Your task to perform on an android device: turn off priority inbox in the gmail app Image 0: 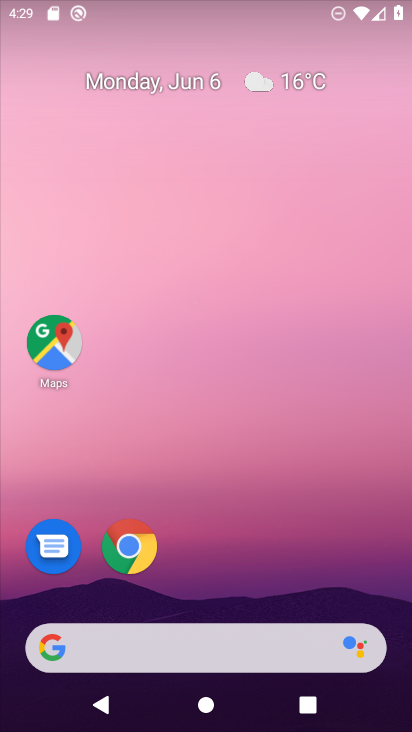
Step 0: drag from (221, 630) to (225, 102)
Your task to perform on an android device: turn off priority inbox in the gmail app Image 1: 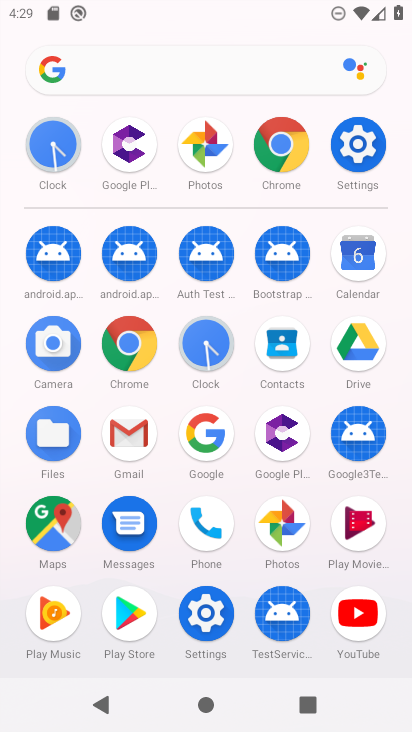
Step 1: click (131, 447)
Your task to perform on an android device: turn off priority inbox in the gmail app Image 2: 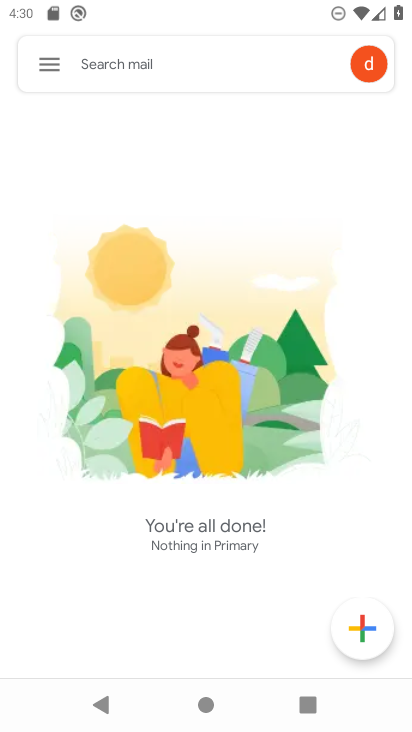
Step 2: click (45, 71)
Your task to perform on an android device: turn off priority inbox in the gmail app Image 3: 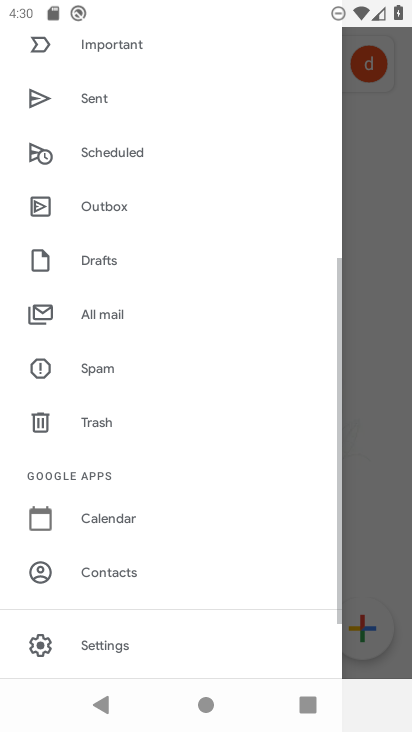
Step 3: click (105, 641)
Your task to perform on an android device: turn off priority inbox in the gmail app Image 4: 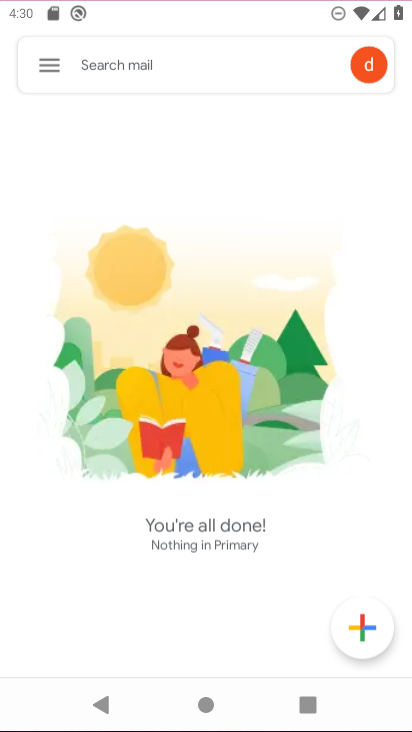
Step 4: drag from (105, 625) to (40, 79)
Your task to perform on an android device: turn off priority inbox in the gmail app Image 5: 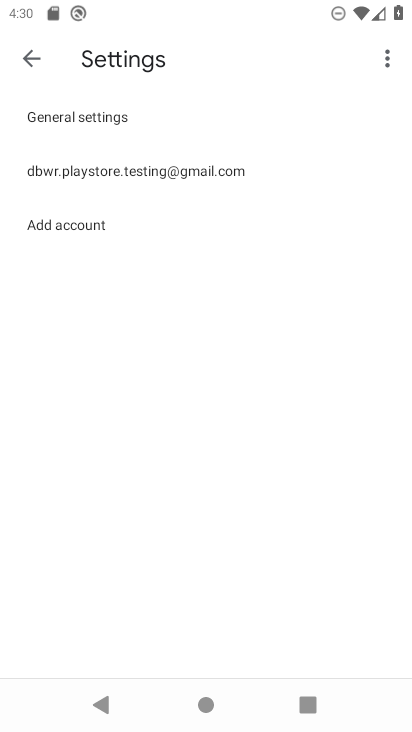
Step 5: click (71, 174)
Your task to perform on an android device: turn off priority inbox in the gmail app Image 6: 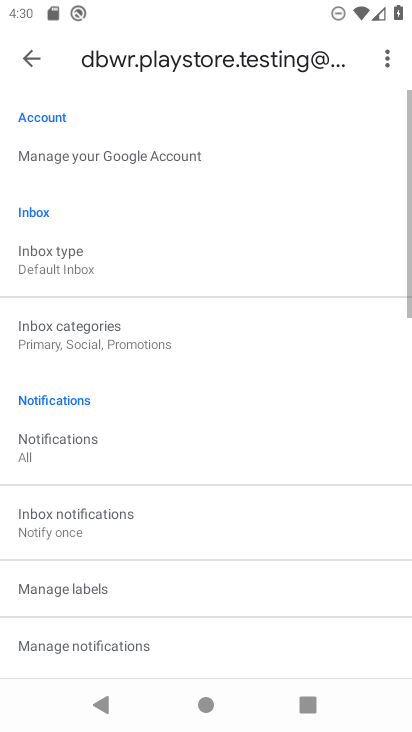
Step 6: click (80, 269)
Your task to perform on an android device: turn off priority inbox in the gmail app Image 7: 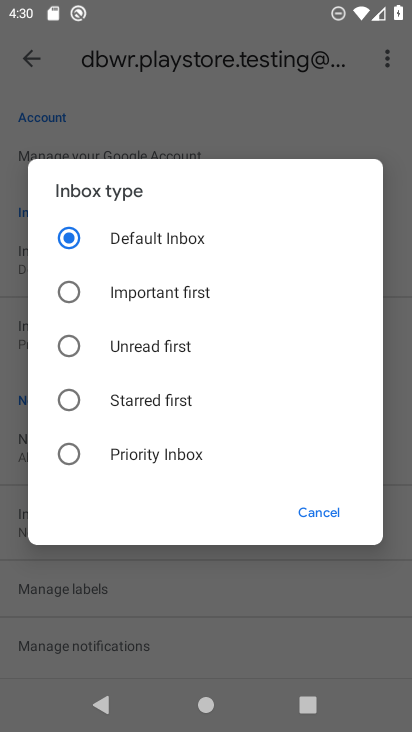
Step 7: task complete